Your task to perform on an android device: Add razer deathadder to the cart on amazon.com, then select checkout. Image 0: 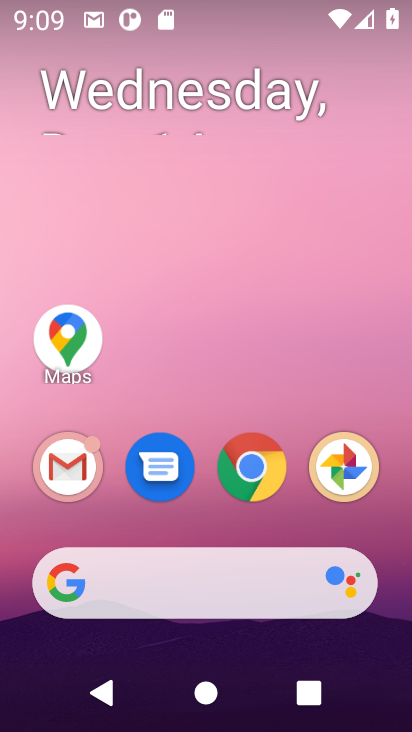
Step 0: click (269, 459)
Your task to perform on an android device: Add razer deathadder to the cart on amazon.com, then select checkout. Image 1: 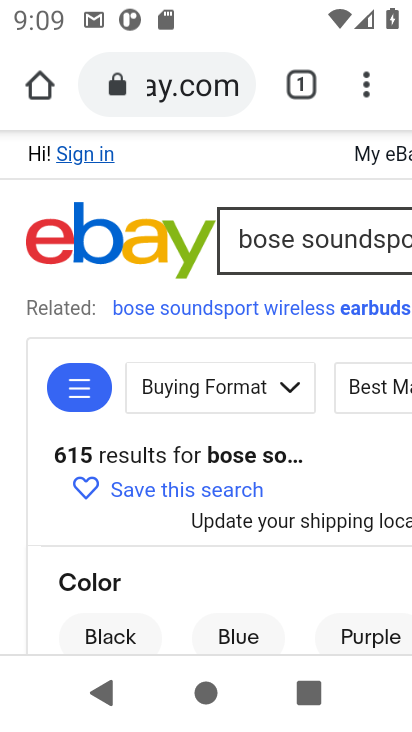
Step 1: click (191, 81)
Your task to perform on an android device: Add razer deathadder to the cart on amazon.com, then select checkout. Image 2: 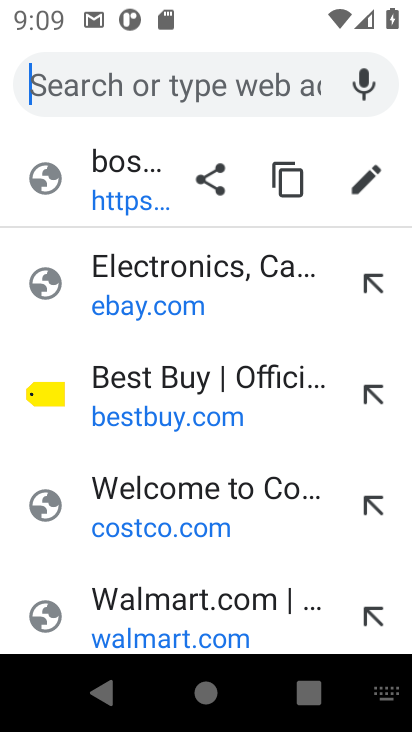
Step 2: type "amazon"
Your task to perform on an android device: Add razer deathadder to the cart on amazon.com, then select checkout. Image 3: 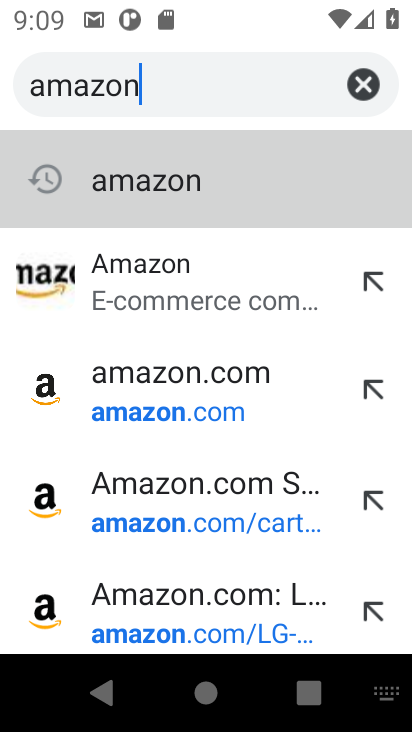
Step 3: click (151, 271)
Your task to perform on an android device: Add razer deathadder to the cart on amazon.com, then select checkout. Image 4: 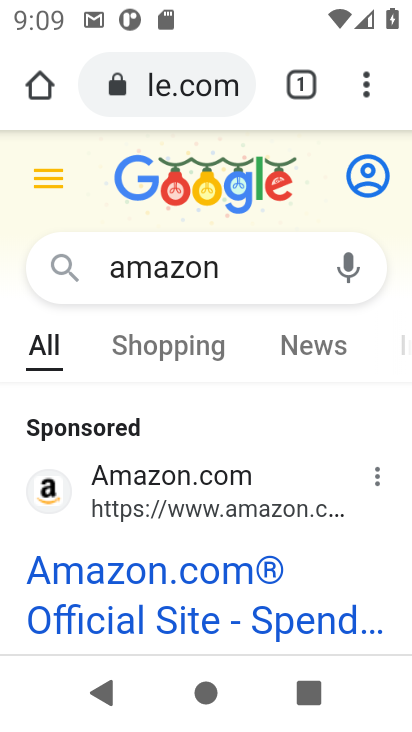
Step 4: click (124, 560)
Your task to perform on an android device: Add razer deathadder to the cart on amazon.com, then select checkout. Image 5: 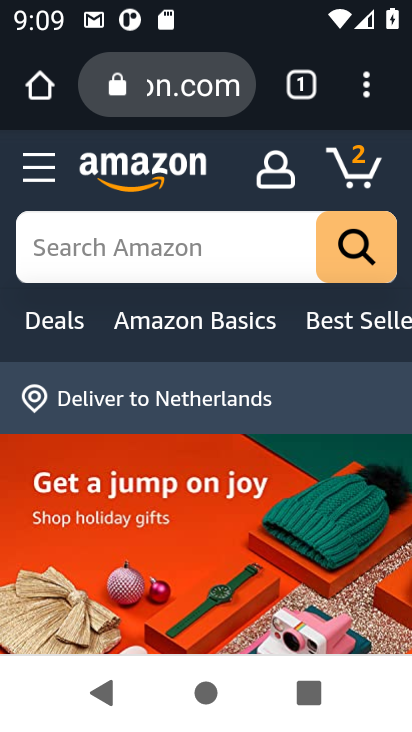
Step 5: click (156, 267)
Your task to perform on an android device: Add razer deathadder to the cart on amazon.com, then select checkout. Image 6: 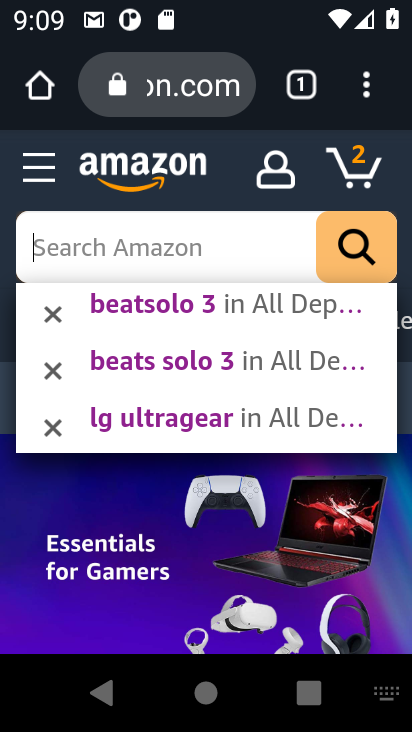
Step 6: type "razer deathadder"
Your task to perform on an android device: Add razer deathadder to the cart on amazon.com, then select checkout. Image 7: 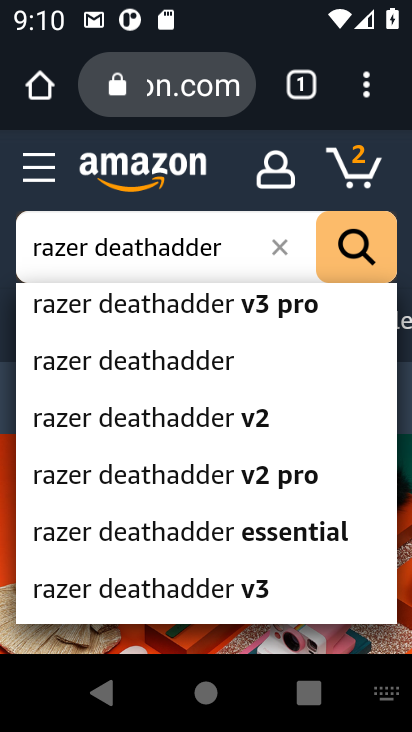
Step 7: click (172, 355)
Your task to perform on an android device: Add razer deathadder to the cart on amazon.com, then select checkout. Image 8: 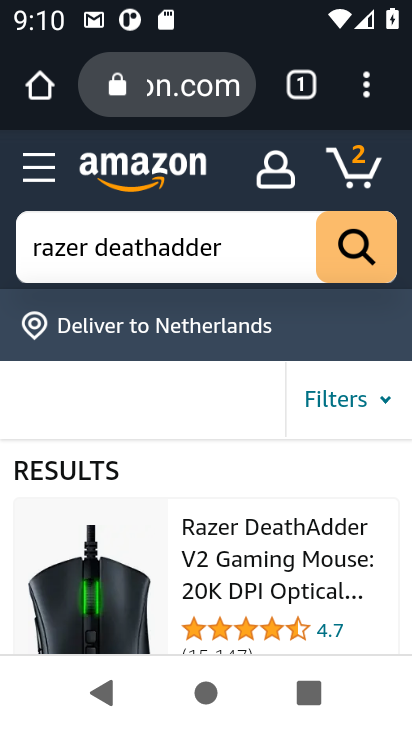
Step 8: click (252, 516)
Your task to perform on an android device: Add razer deathadder to the cart on amazon.com, then select checkout. Image 9: 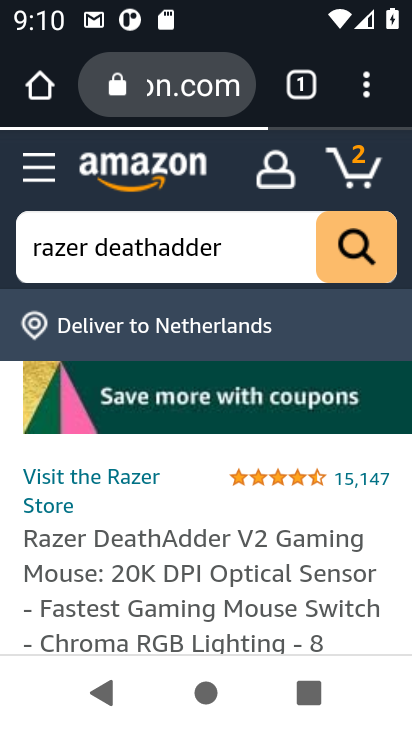
Step 9: task complete